Your task to perform on an android device: When is my next meeting? Image 0: 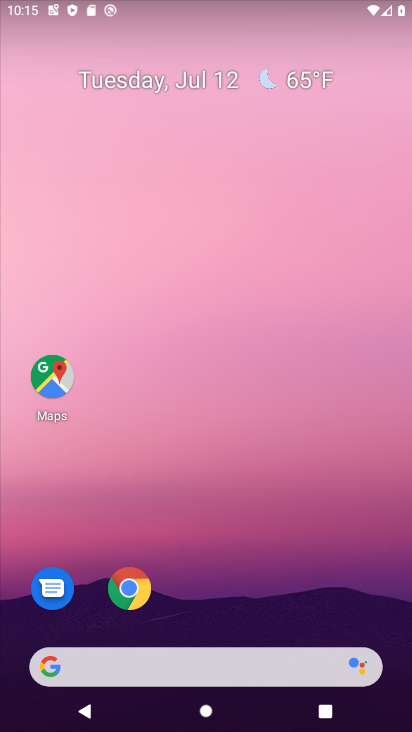
Step 0: drag from (21, 729) to (207, 3)
Your task to perform on an android device: When is my next meeting? Image 1: 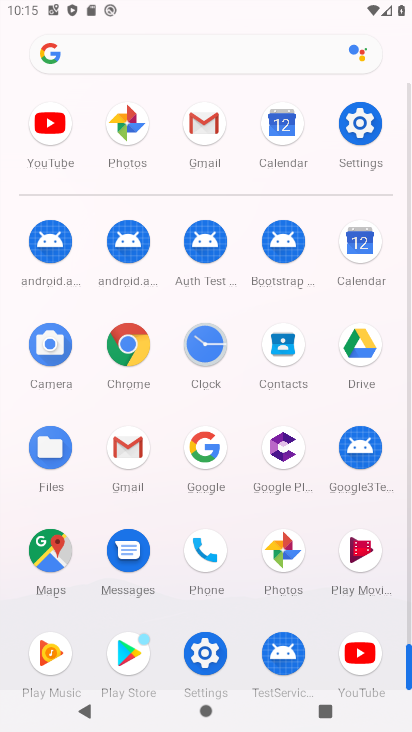
Step 1: click (358, 256)
Your task to perform on an android device: When is my next meeting? Image 2: 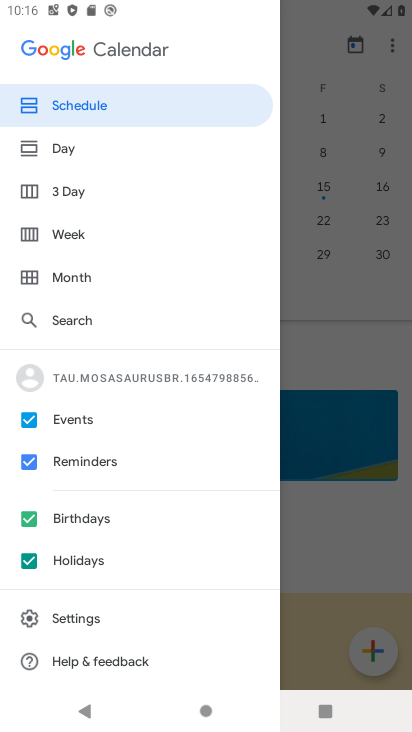
Step 2: click (334, 326)
Your task to perform on an android device: When is my next meeting? Image 3: 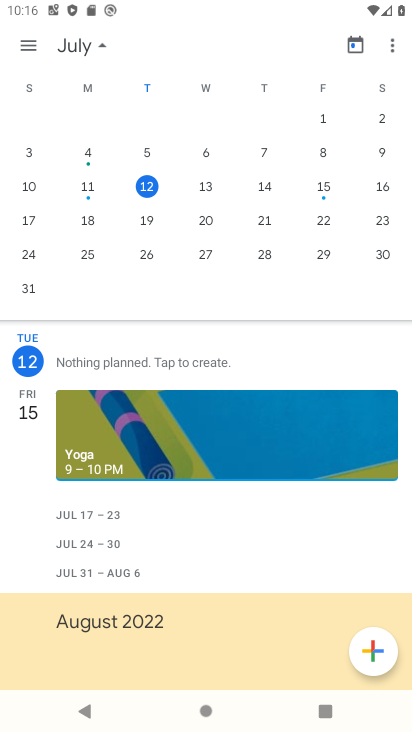
Step 3: task complete